Your task to perform on an android device: toggle sleep mode Image 0: 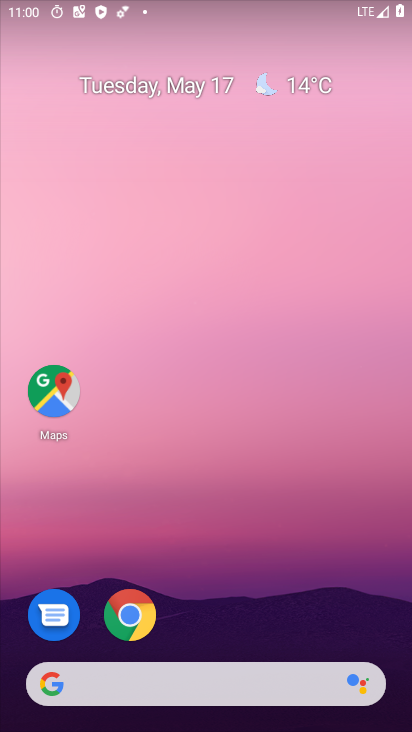
Step 0: press home button
Your task to perform on an android device: toggle sleep mode Image 1: 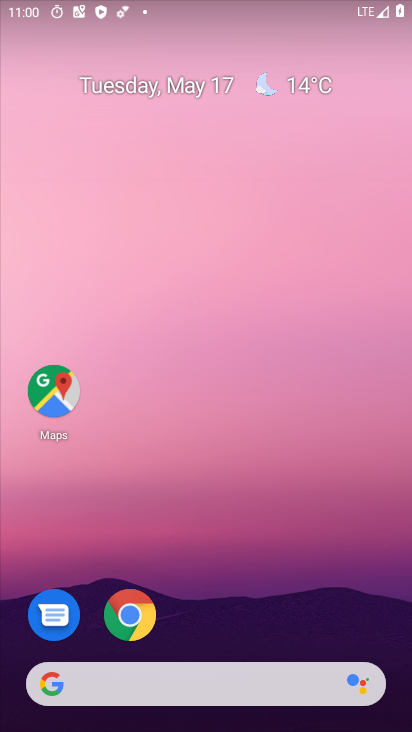
Step 1: drag from (155, 682) to (322, 124)
Your task to perform on an android device: toggle sleep mode Image 2: 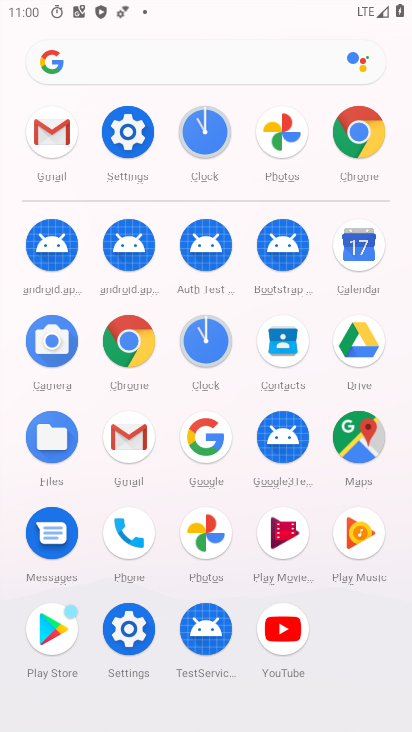
Step 2: click (136, 142)
Your task to perform on an android device: toggle sleep mode Image 3: 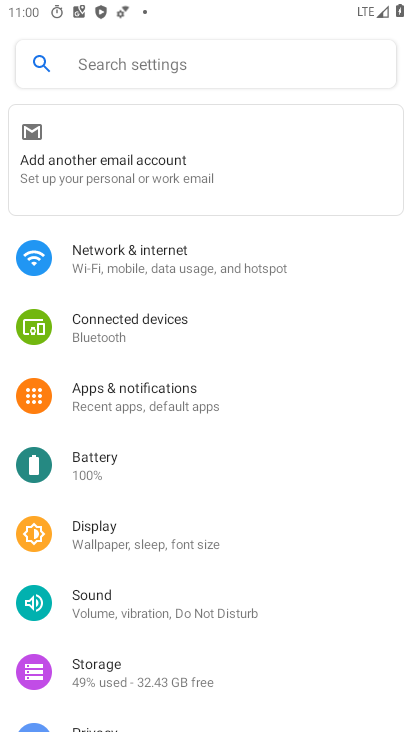
Step 3: click (139, 536)
Your task to perform on an android device: toggle sleep mode Image 4: 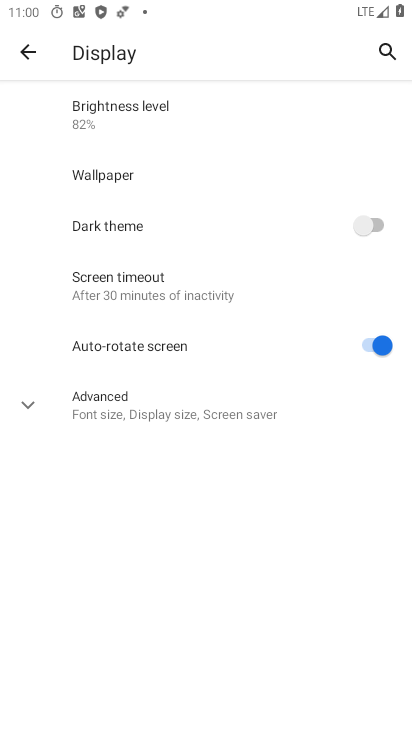
Step 4: task complete